Your task to perform on an android device: toggle priority inbox in the gmail app Image 0: 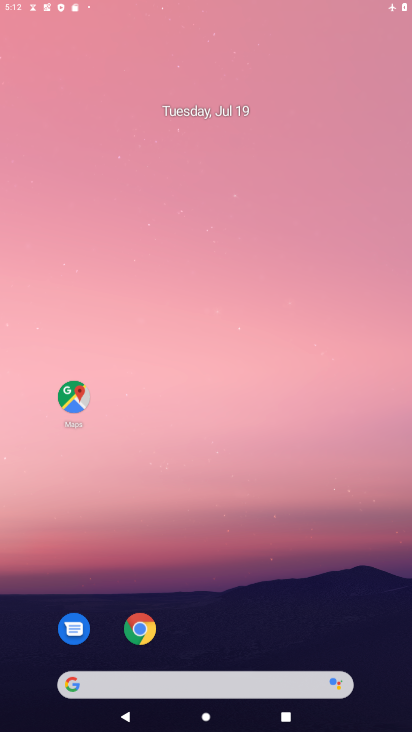
Step 0: press home button
Your task to perform on an android device: toggle priority inbox in the gmail app Image 1: 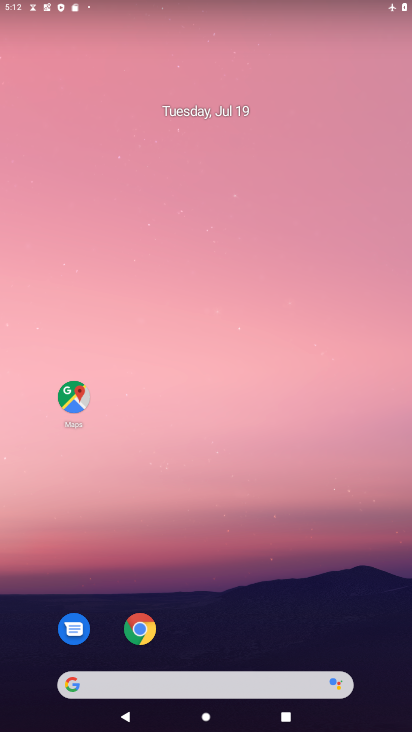
Step 1: drag from (288, 637) to (163, 97)
Your task to perform on an android device: toggle priority inbox in the gmail app Image 2: 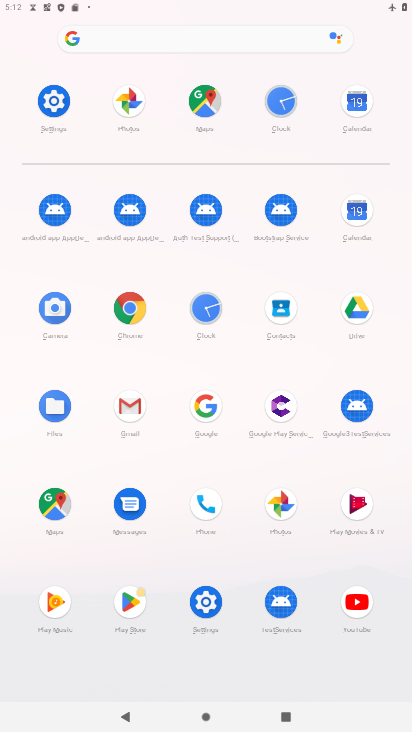
Step 2: click (128, 402)
Your task to perform on an android device: toggle priority inbox in the gmail app Image 3: 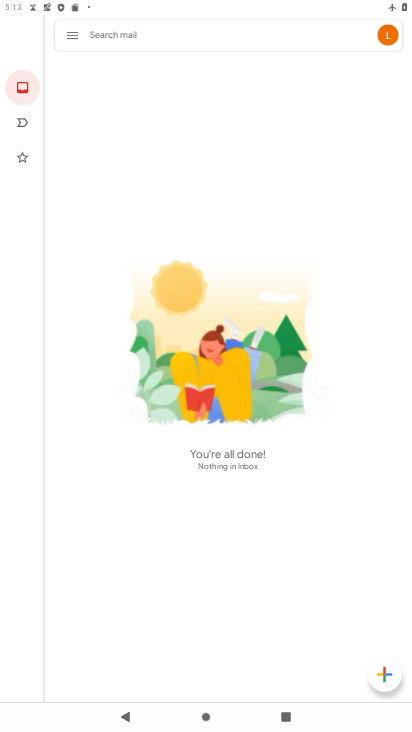
Step 3: click (75, 31)
Your task to perform on an android device: toggle priority inbox in the gmail app Image 4: 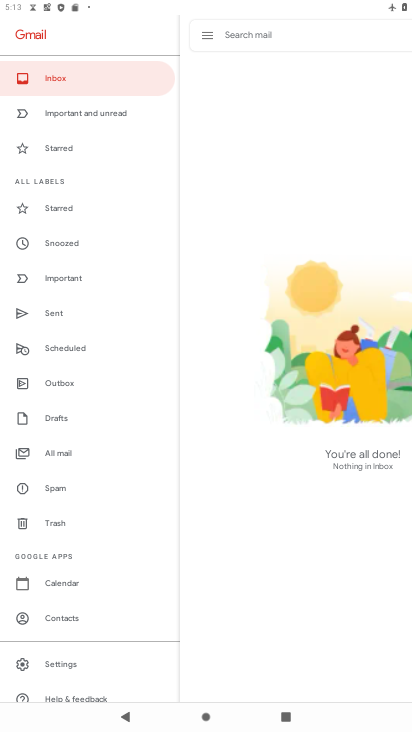
Step 4: click (71, 662)
Your task to perform on an android device: toggle priority inbox in the gmail app Image 5: 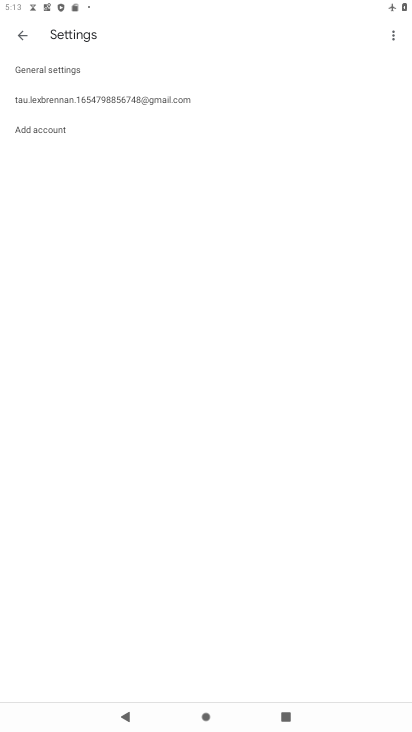
Step 5: click (88, 99)
Your task to perform on an android device: toggle priority inbox in the gmail app Image 6: 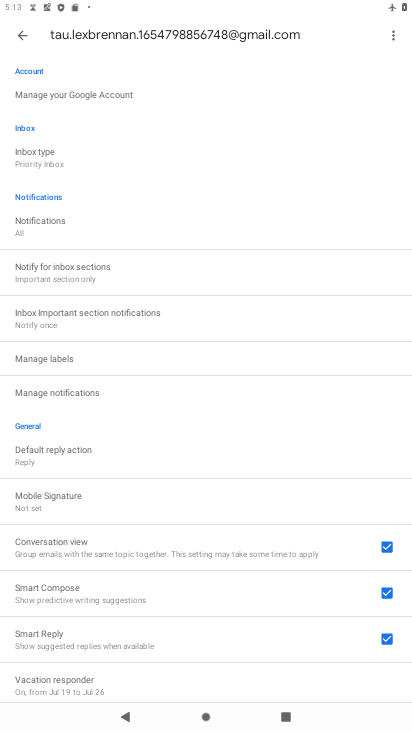
Step 6: click (48, 165)
Your task to perform on an android device: toggle priority inbox in the gmail app Image 7: 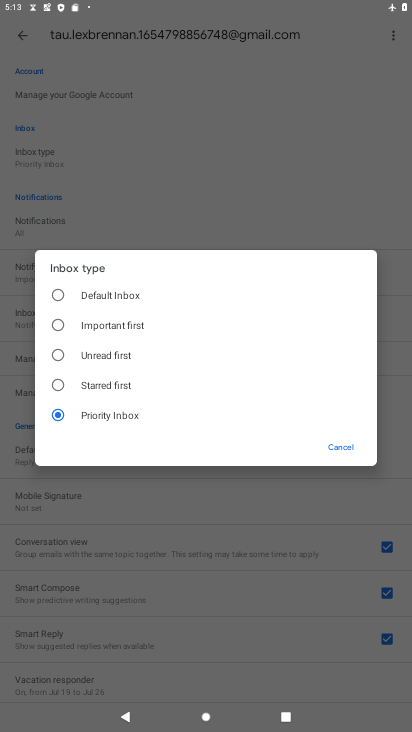
Step 7: click (57, 293)
Your task to perform on an android device: toggle priority inbox in the gmail app Image 8: 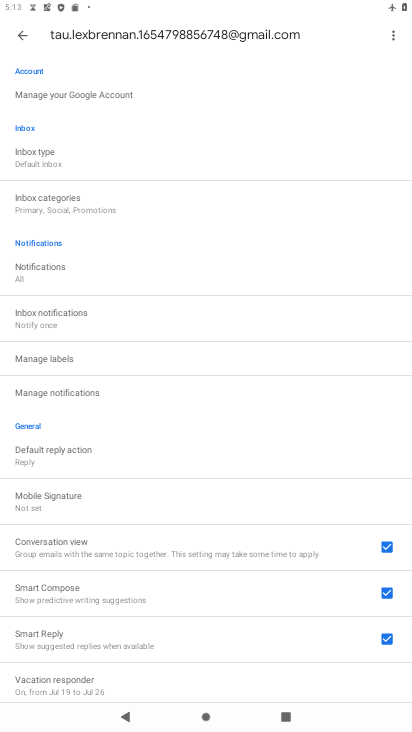
Step 8: task complete